Your task to perform on an android device: find which apps use the phone's location Image 0: 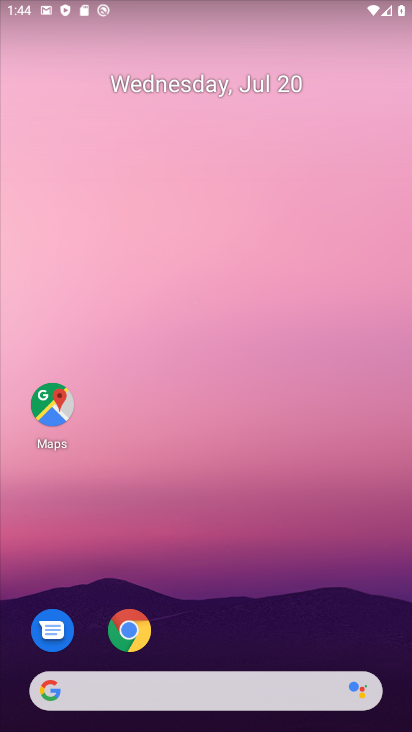
Step 0: drag from (189, 699) to (259, 171)
Your task to perform on an android device: find which apps use the phone's location Image 1: 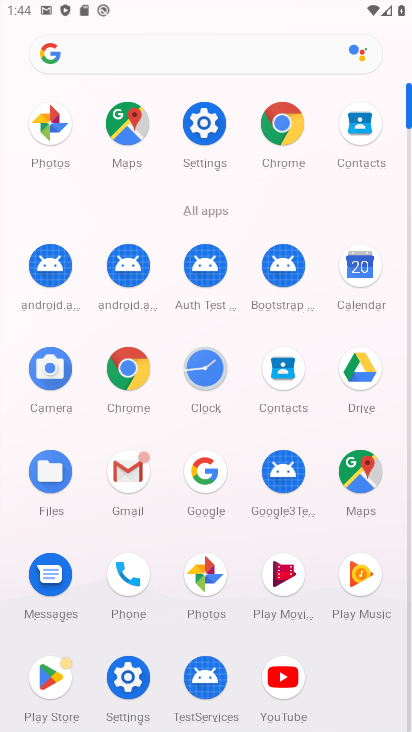
Step 1: click (205, 125)
Your task to perform on an android device: find which apps use the phone's location Image 2: 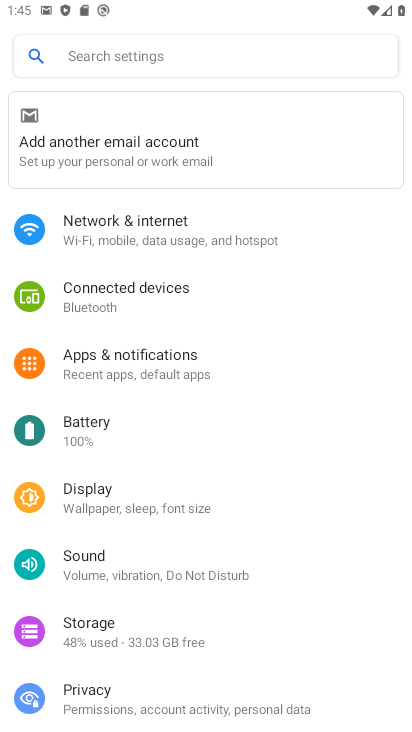
Step 2: drag from (129, 630) to (206, 522)
Your task to perform on an android device: find which apps use the phone's location Image 3: 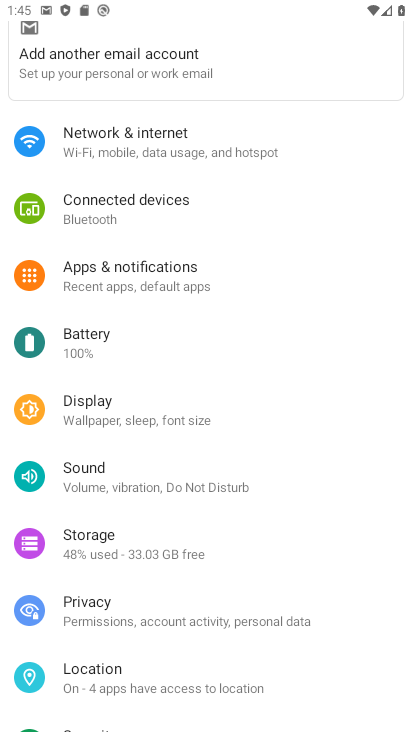
Step 3: click (106, 677)
Your task to perform on an android device: find which apps use the phone's location Image 4: 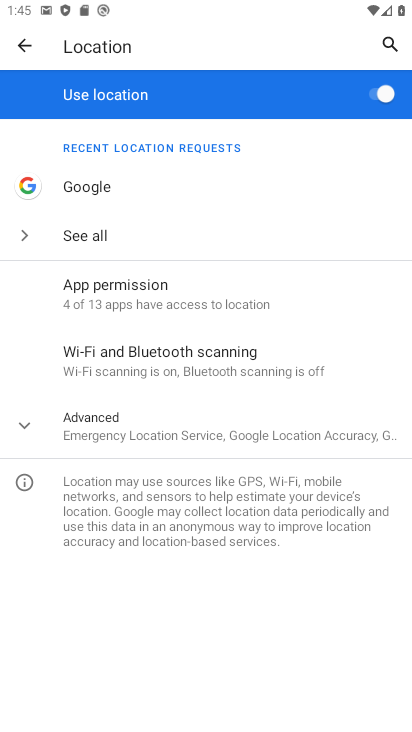
Step 4: click (146, 299)
Your task to perform on an android device: find which apps use the phone's location Image 5: 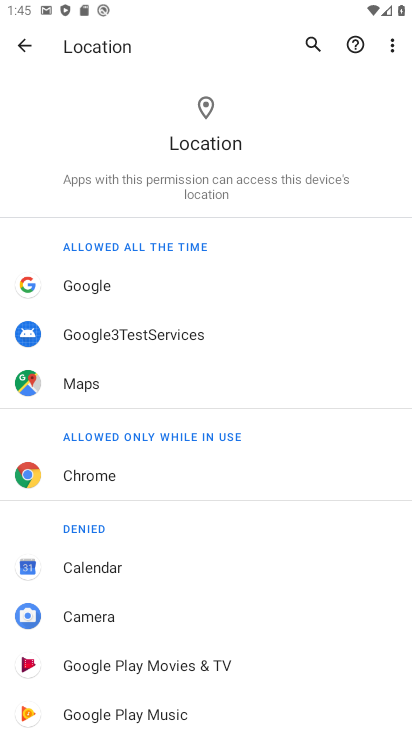
Step 5: click (91, 385)
Your task to perform on an android device: find which apps use the phone's location Image 6: 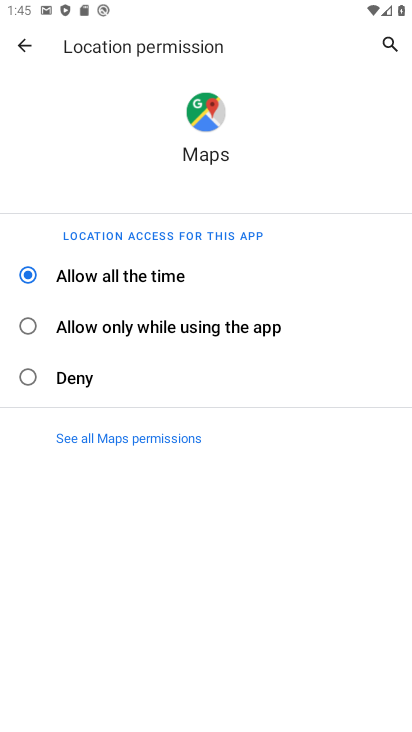
Step 6: task complete